Your task to perform on an android device: Search for pizza restaurants on Maps Image 0: 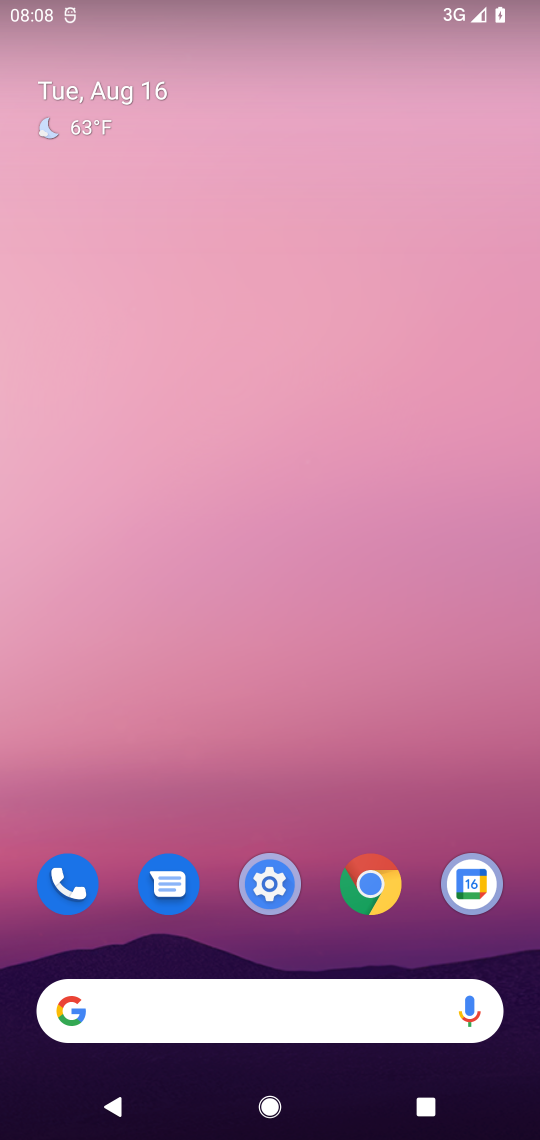
Step 0: press home button
Your task to perform on an android device: Search for pizza restaurants on Maps Image 1: 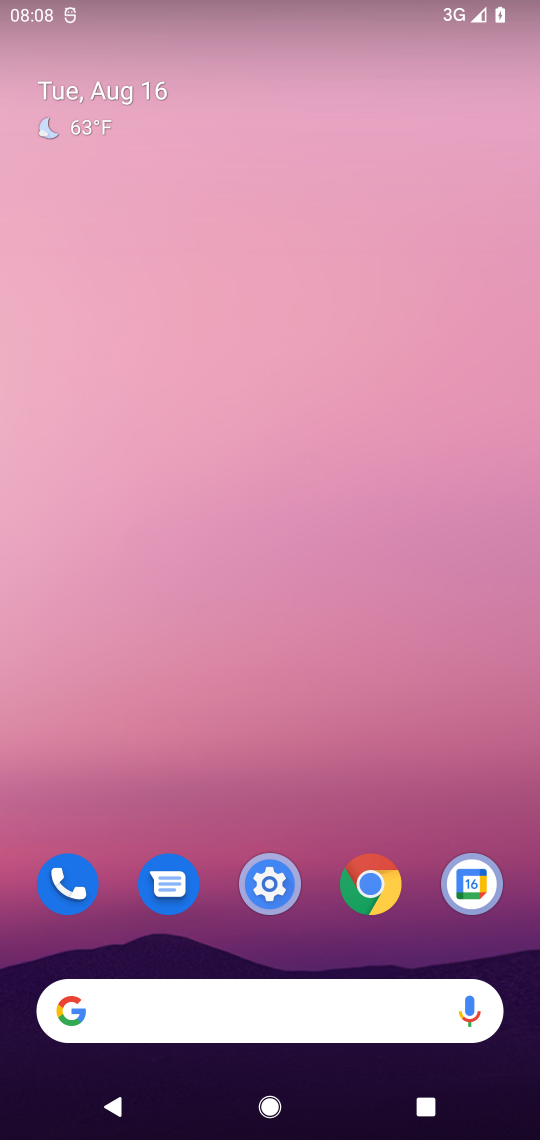
Step 1: drag from (334, 763) to (325, 240)
Your task to perform on an android device: Search for pizza restaurants on Maps Image 2: 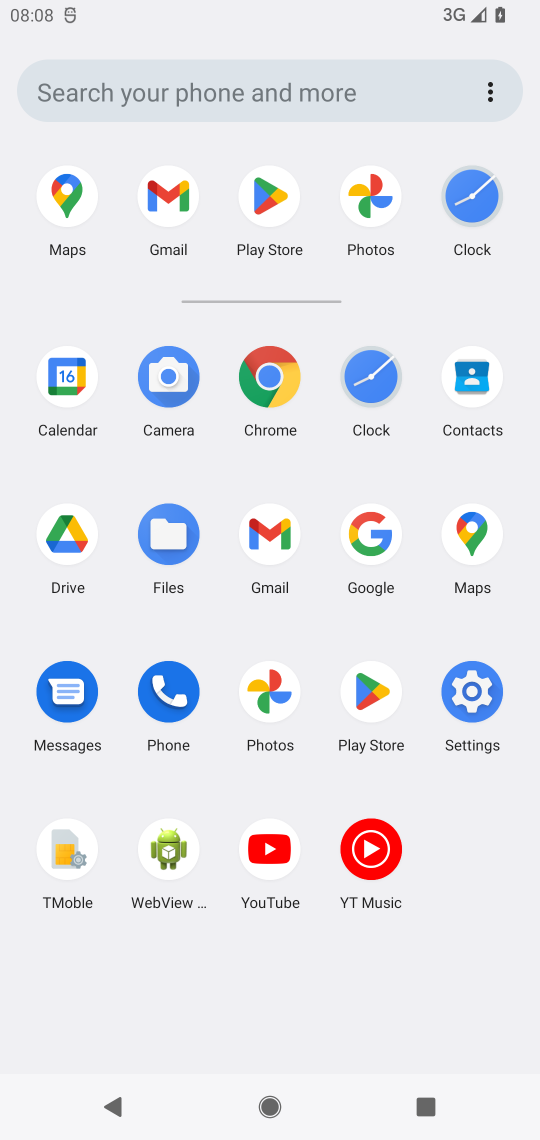
Step 2: click (57, 184)
Your task to perform on an android device: Search for pizza restaurants on Maps Image 3: 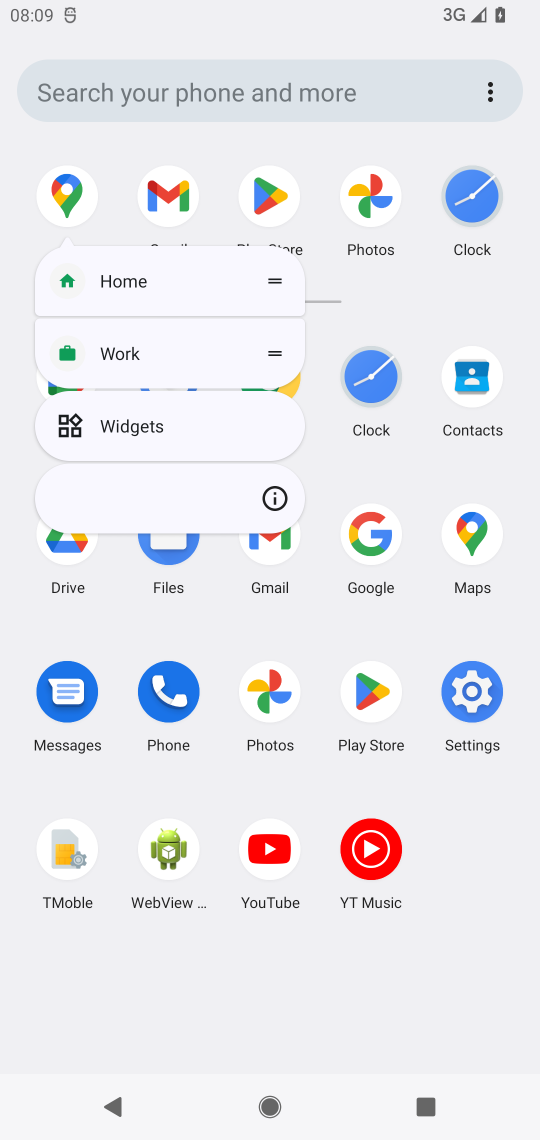
Step 3: click (63, 181)
Your task to perform on an android device: Search for pizza restaurants on Maps Image 4: 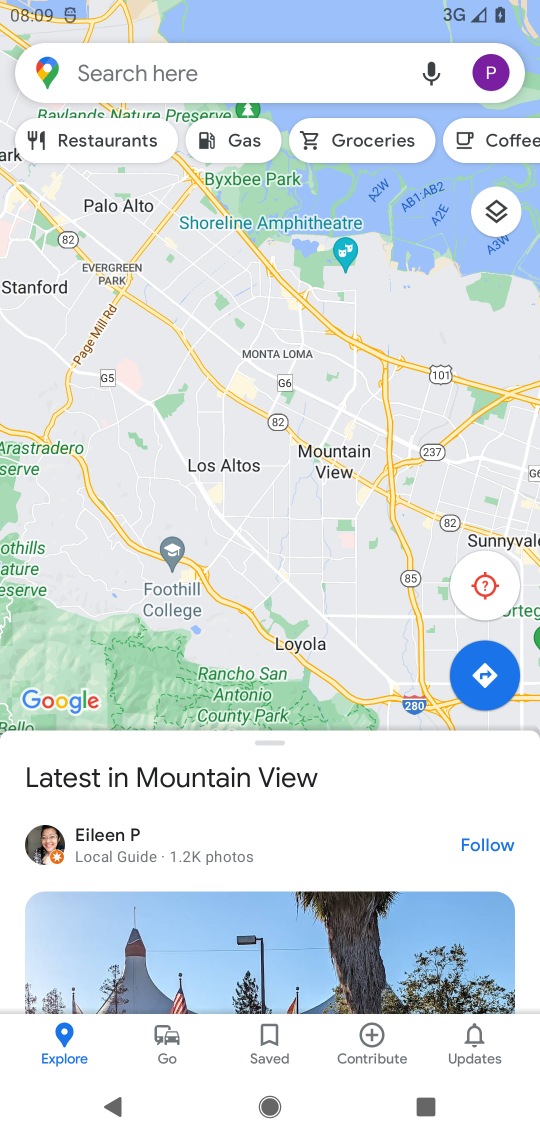
Step 4: click (183, 69)
Your task to perform on an android device: Search for pizza restaurants on Maps Image 5: 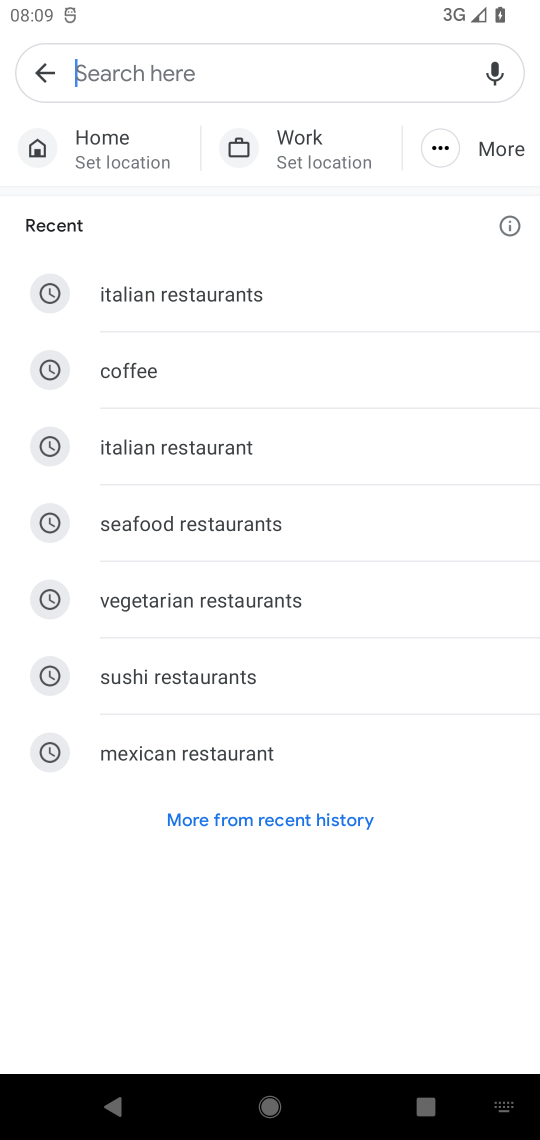
Step 5: type " pizza restaurants"
Your task to perform on an android device: Search for pizza restaurants on Maps Image 6: 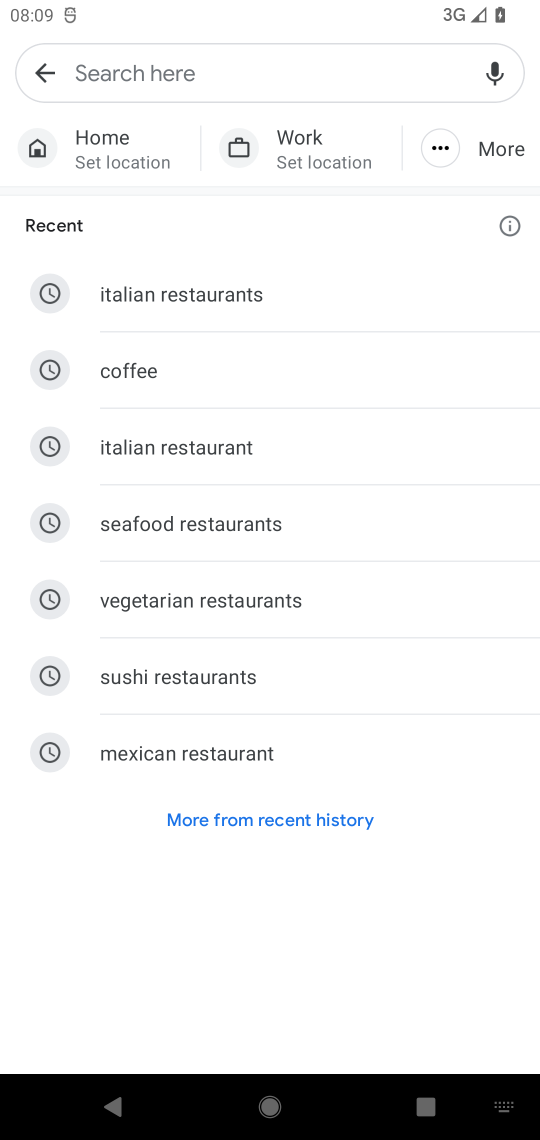
Step 6: click (172, 72)
Your task to perform on an android device: Search for pizza restaurants on Maps Image 7: 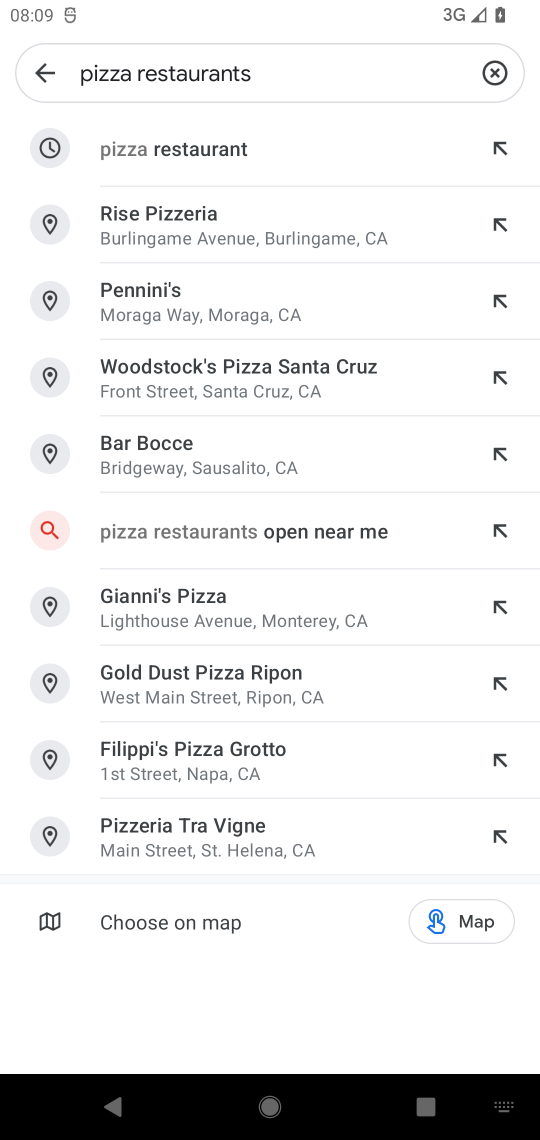
Step 7: press enter
Your task to perform on an android device: Search for pizza restaurants on Maps Image 8: 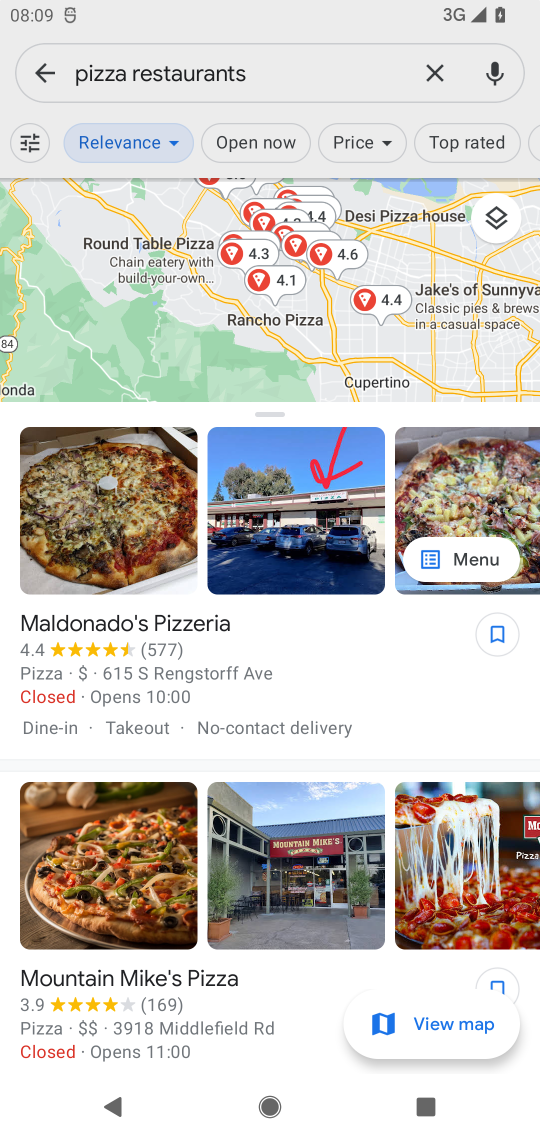
Step 8: task complete